Your task to perform on an android device: Go to notification settings Image 0: 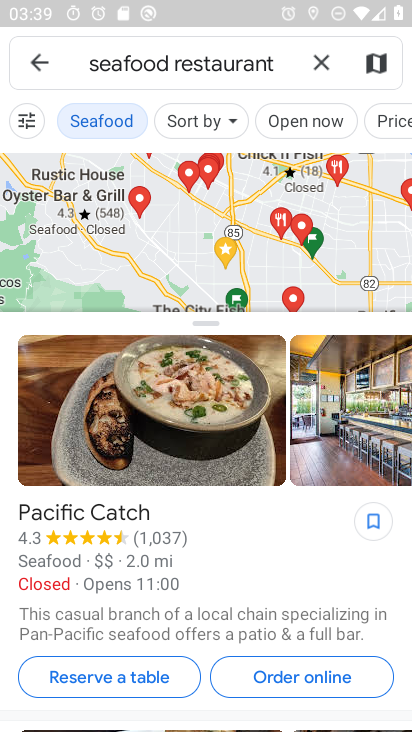
Step 0: press back button
Your task to perform on an android device: Go to notification settings Image 1: 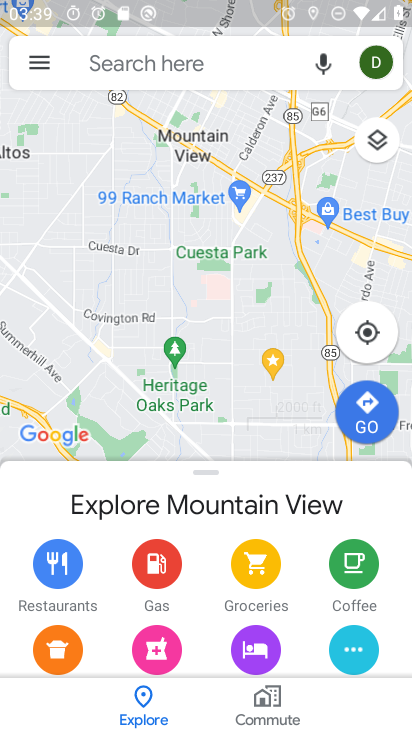
Step 1: press back button
Your task to perform on an android device: Go to notification settings Image 2: 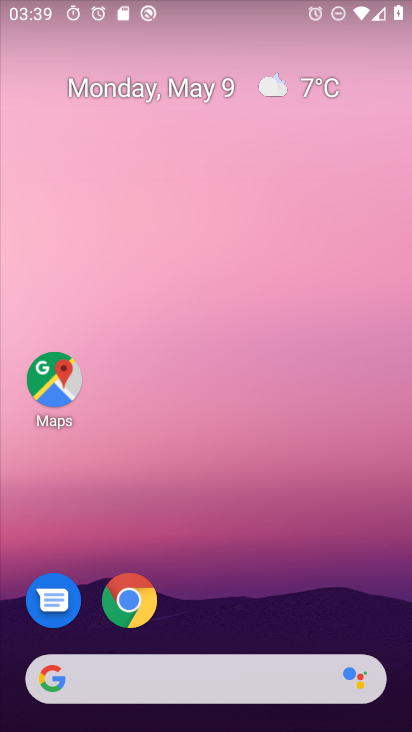
Step 2: drag from (212, 668) to (220, 167)
Your task to perform on an android device: Go to notification settings Image 3: 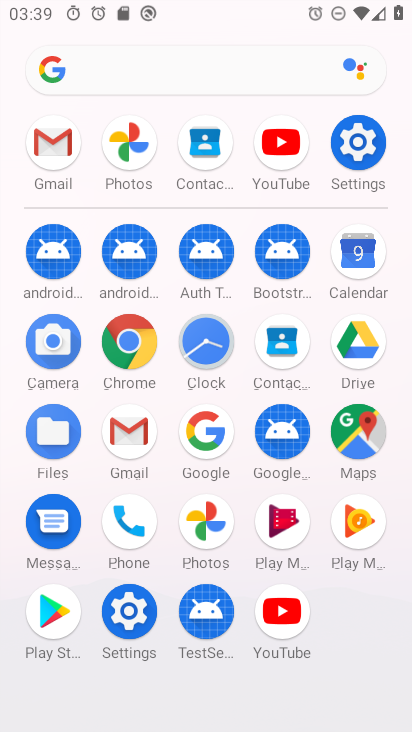
Step 3: click (352, 140)
Your task to perform on an android device: Go to notification settings Image 4: 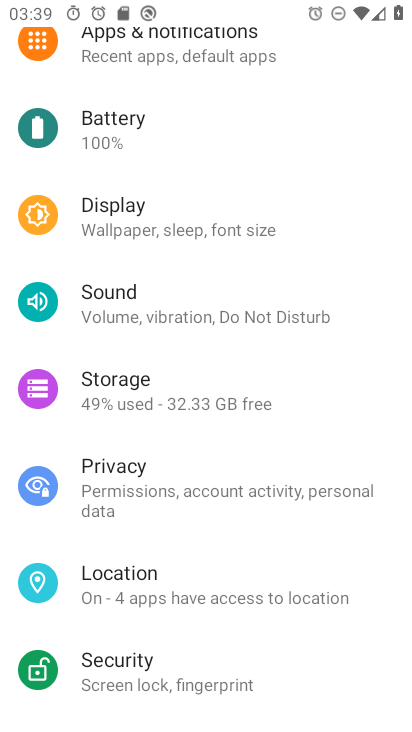
Step 4: click (175, 57)
Your task to perform on an android device: Go to notification settings Image 5: 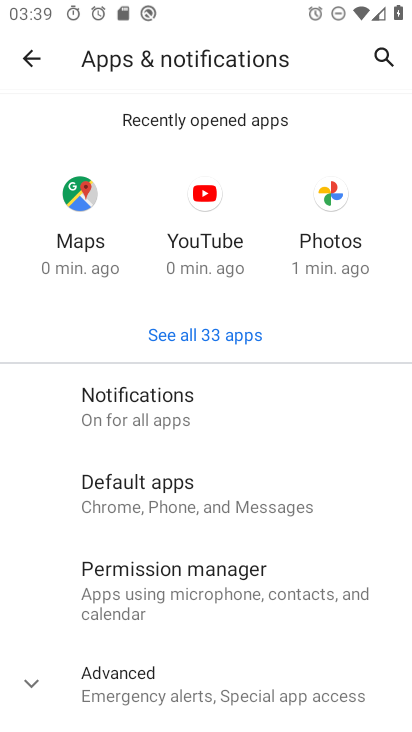
Step 5: task complete